Your task to perform on an android device: open app "Paramount+ | Peak Streaming" (install if not already installed) Image 0: 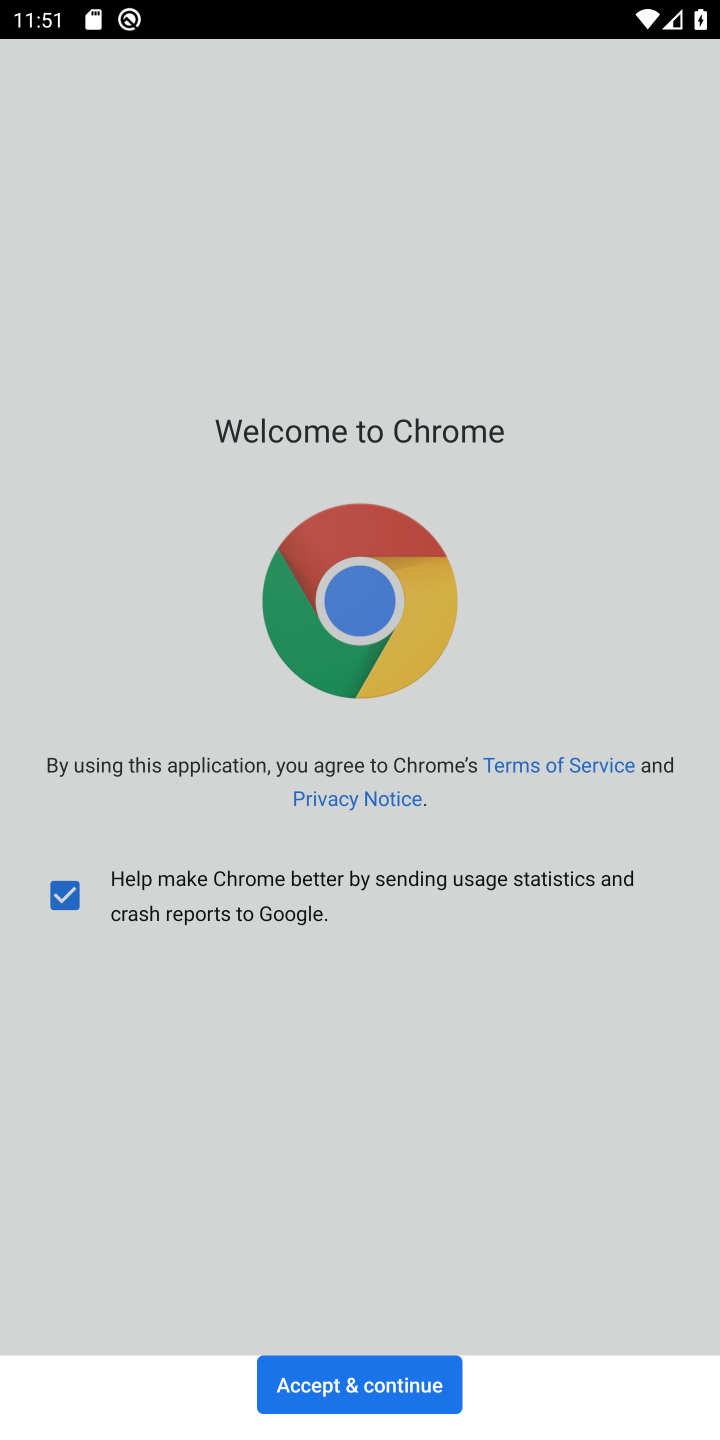
Step 0: press home button
Your task to perform on an android device: open app "Paramount+ | Peak Streaming" (install if not already installed) Image 1: 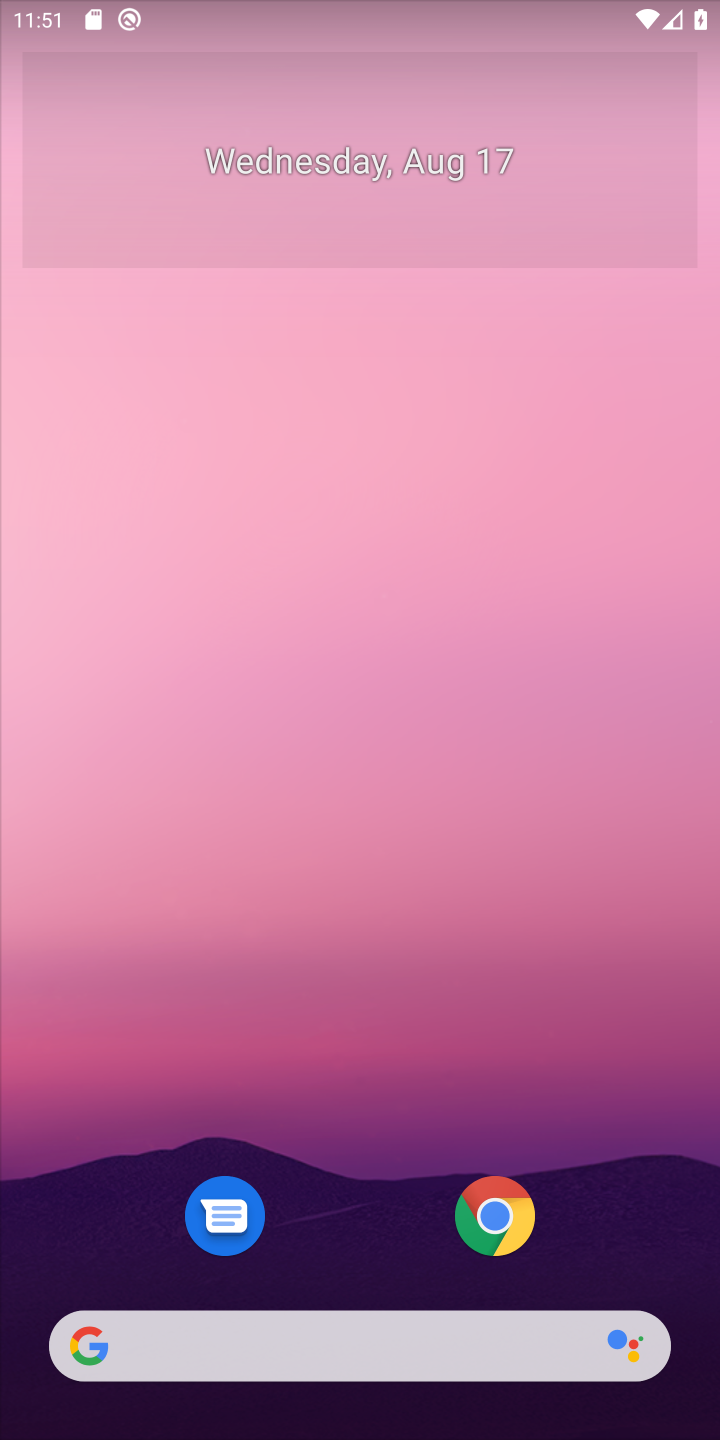
Step 1: drag from (410, 1150) to (336, 233)
Your task to perform on an android device: open app "Paramount+ | Peak Streaming" (install if not already installed) Image 2: 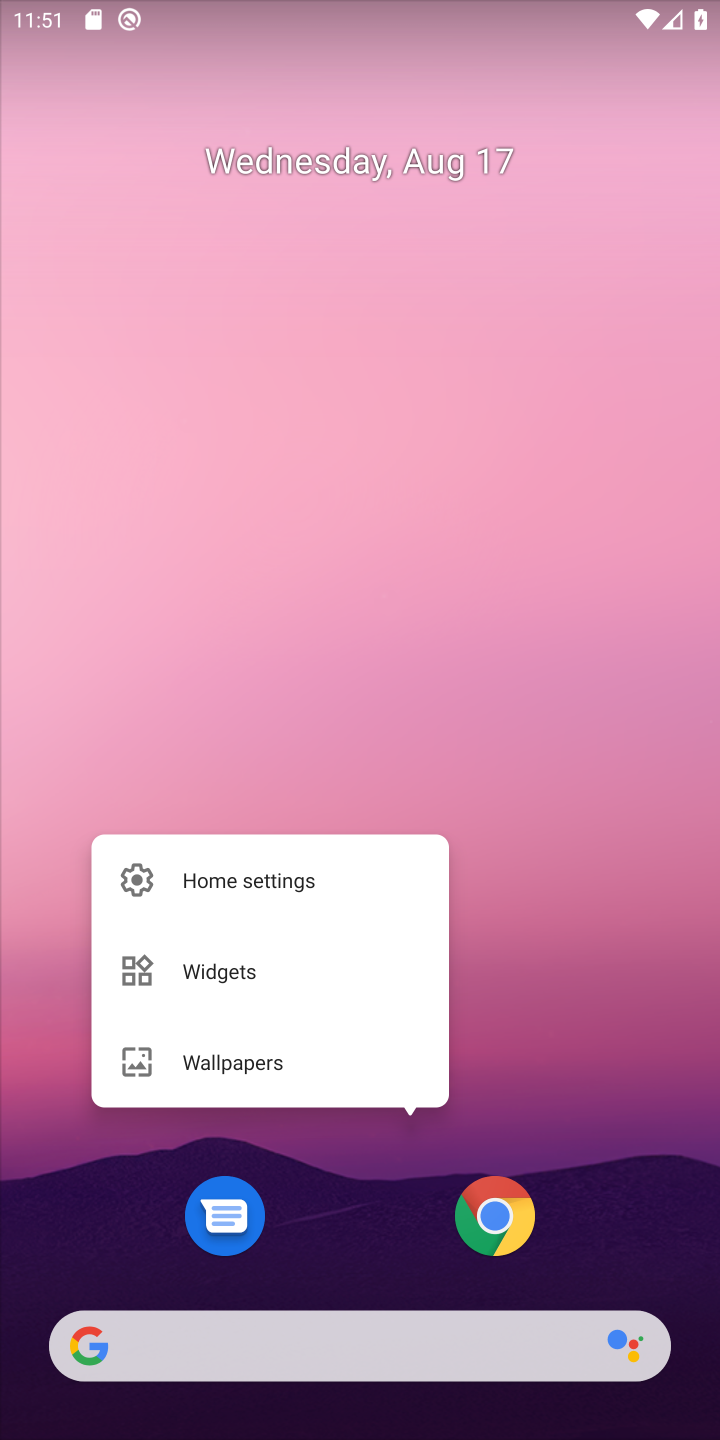
Step 2: click (649, 832)
Your task to perform on an android device: open app "Paramount+ | Peak Streaming" (install if not already installed) Image 3: 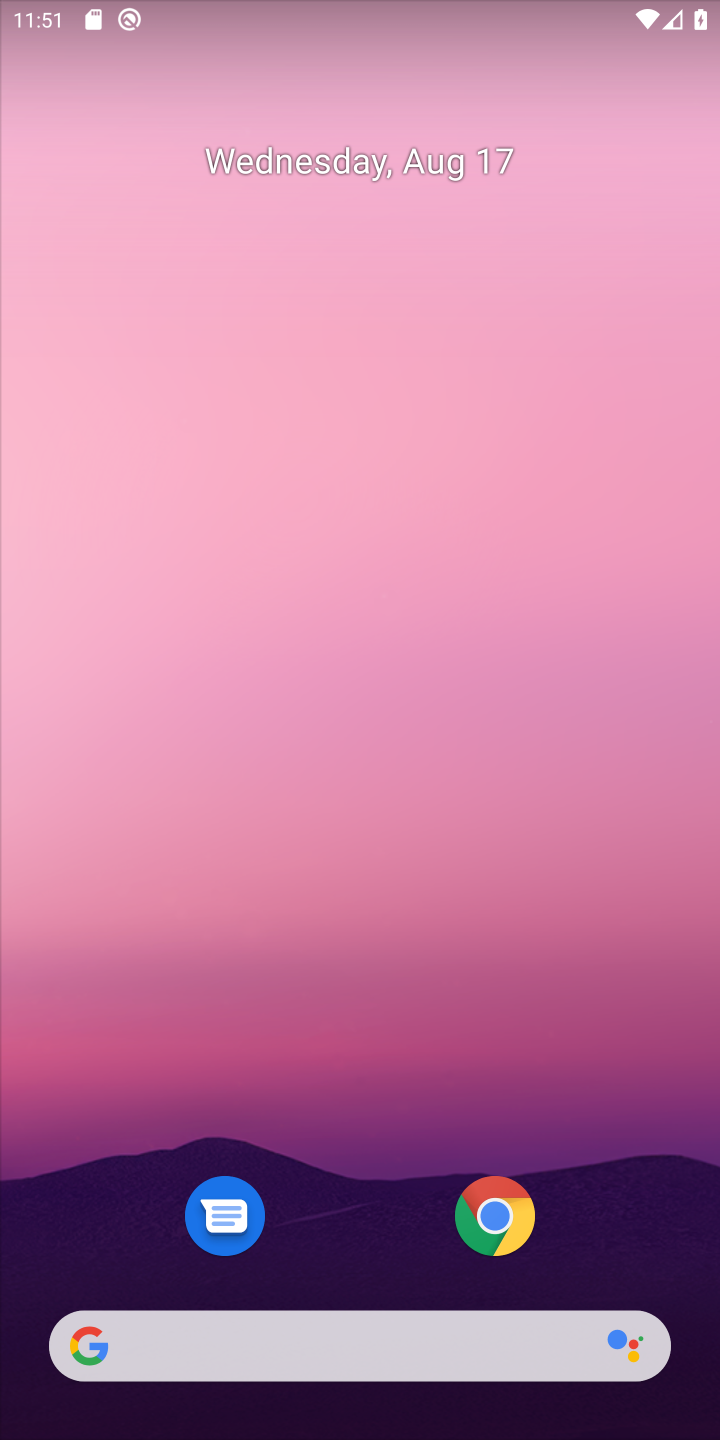
Step 3: drag from (662, 1051) to (559, 396)
Your task to perform on an android device: open app "Paramount+ | Peak Streaming" (install if not already installed) Image 4: 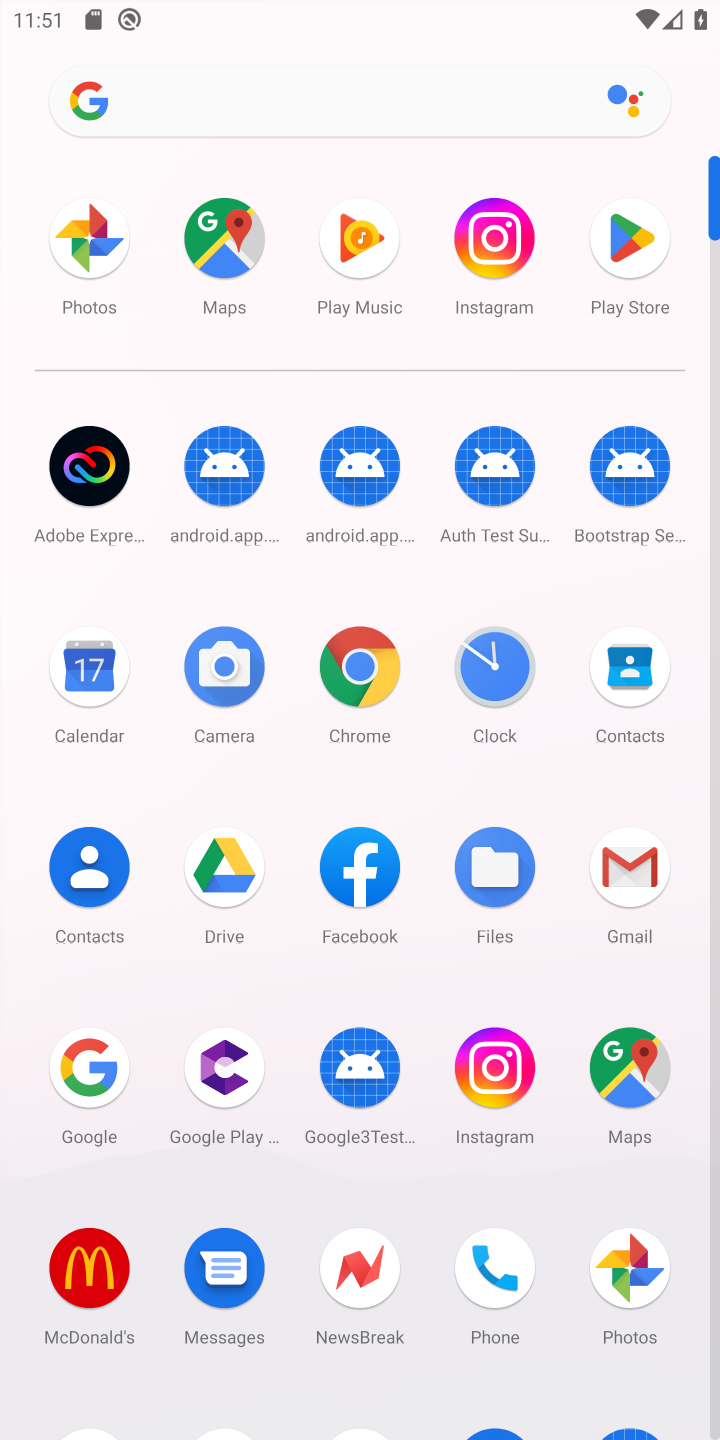
Step 4: click (645, 227)
Your task to perform on an android device: open app "Paramount+ | Peak Streaming" (install if not already installed) Image 5: 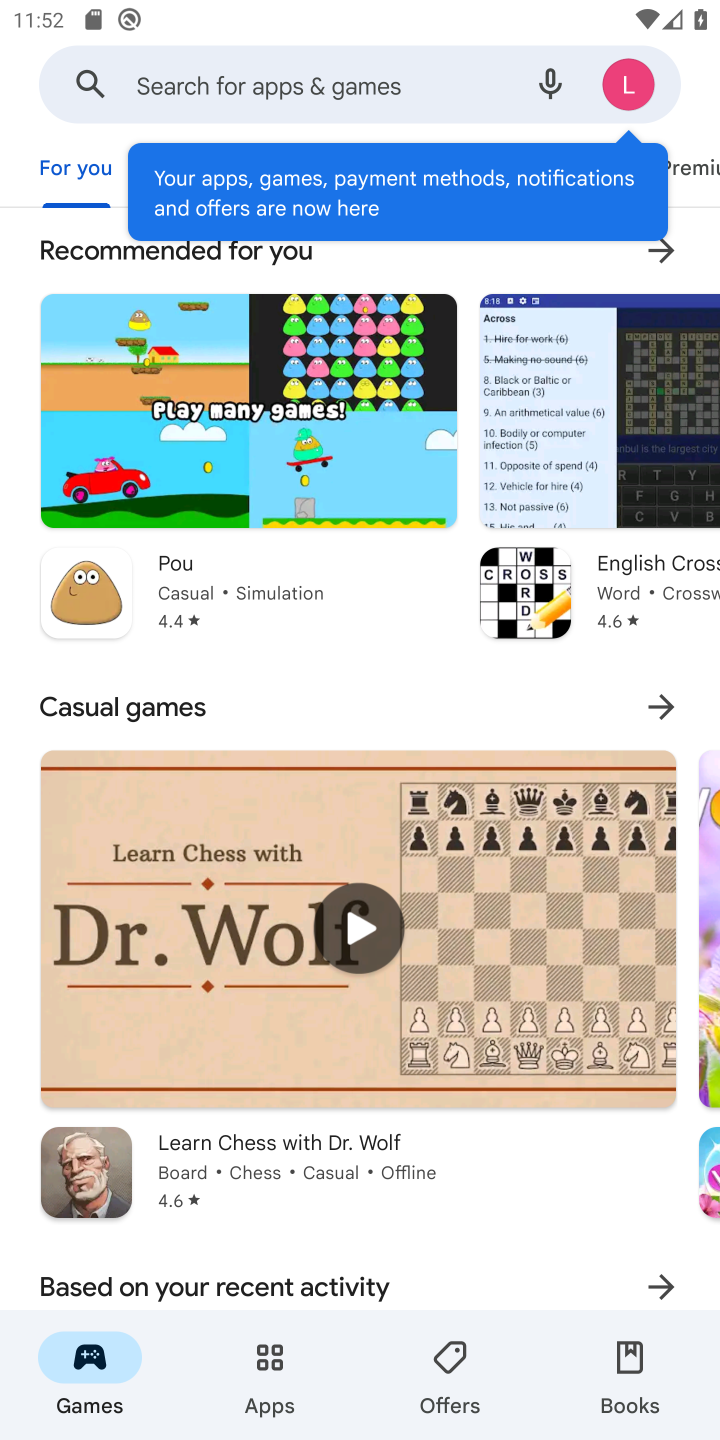
Step 5: click (319, 84)
Your task to perform on an android device: open app "Paramount+ | Peak Streaming" (install if not already installed) Image 6: 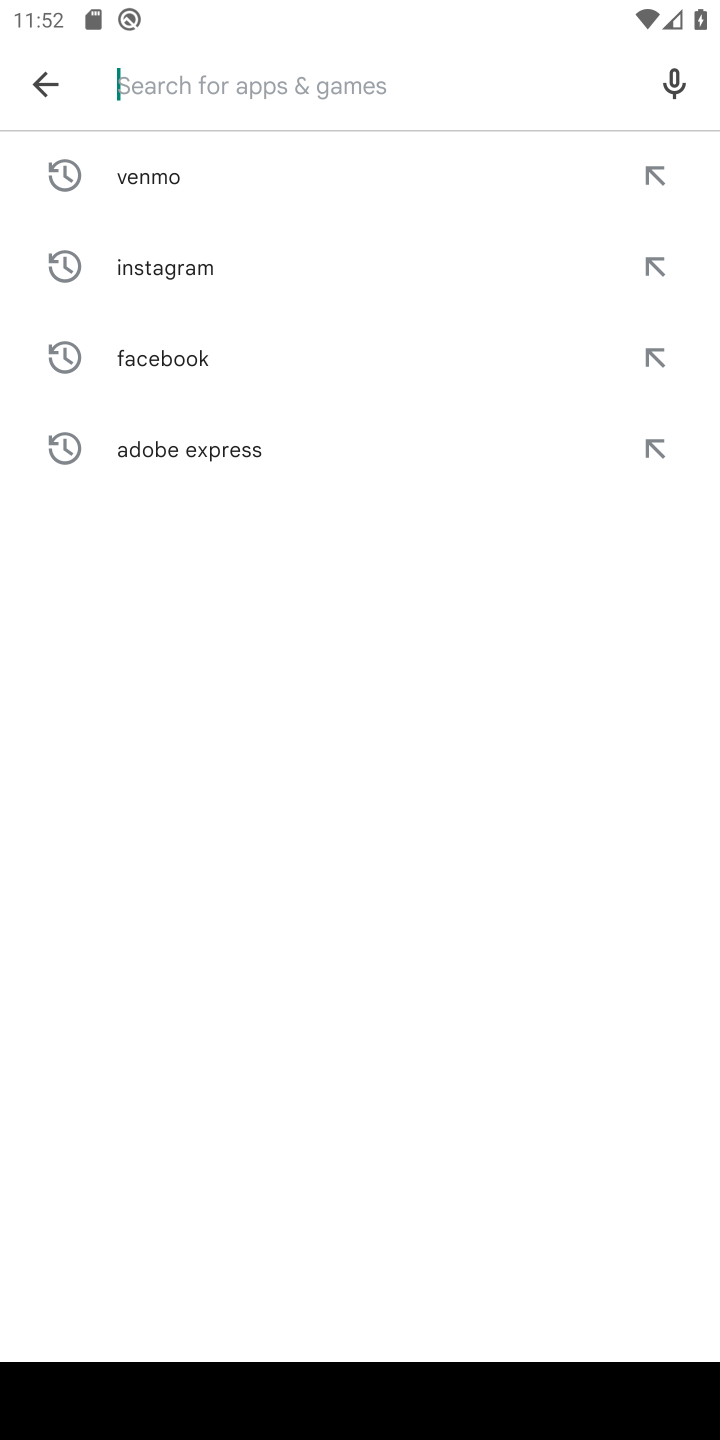
Step 6: type "paramount +"
Your task to perform on an android device: open app "Paramount+ | Peak Streaming" (install if not already installed) Image 7: 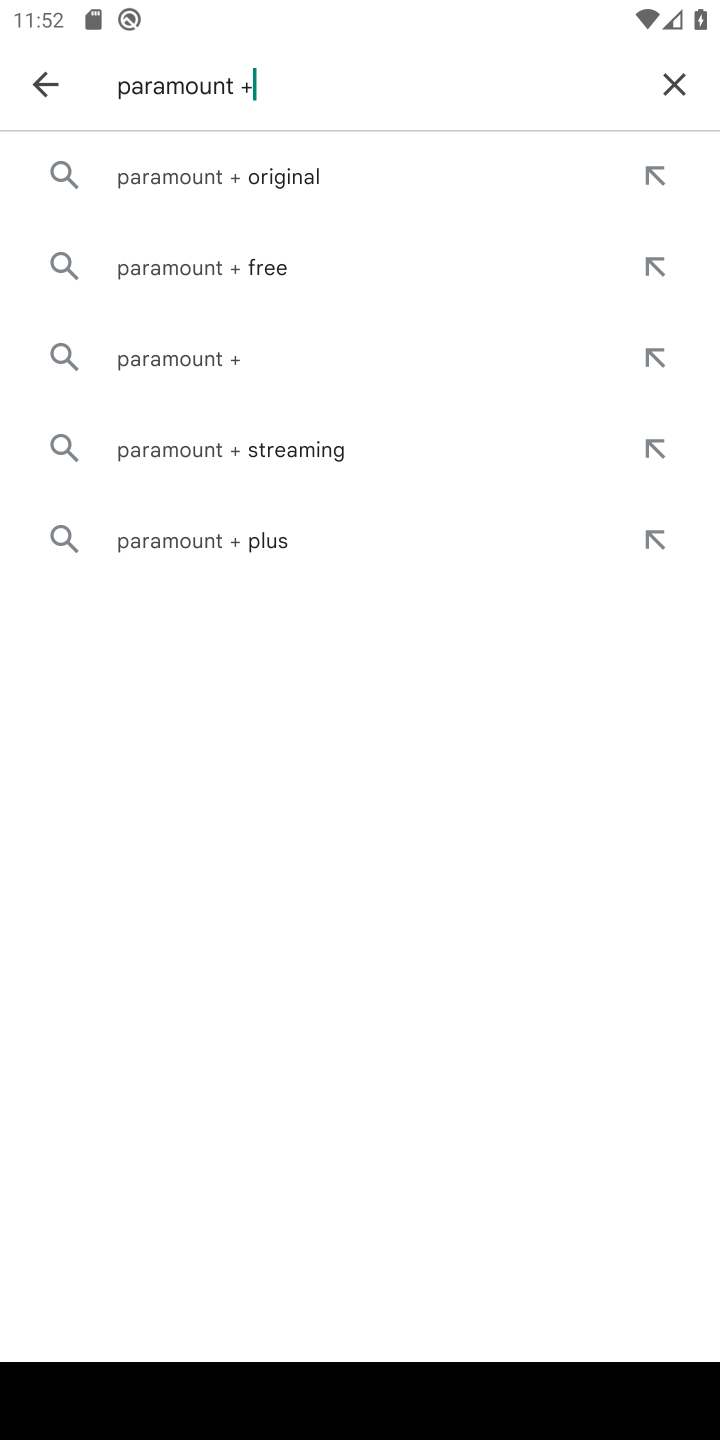
Step 7: click (339, 351)
Your task to perform on an android device: open app "Paramount+ | Peak Streaming" (install if not already installed) Image 8: 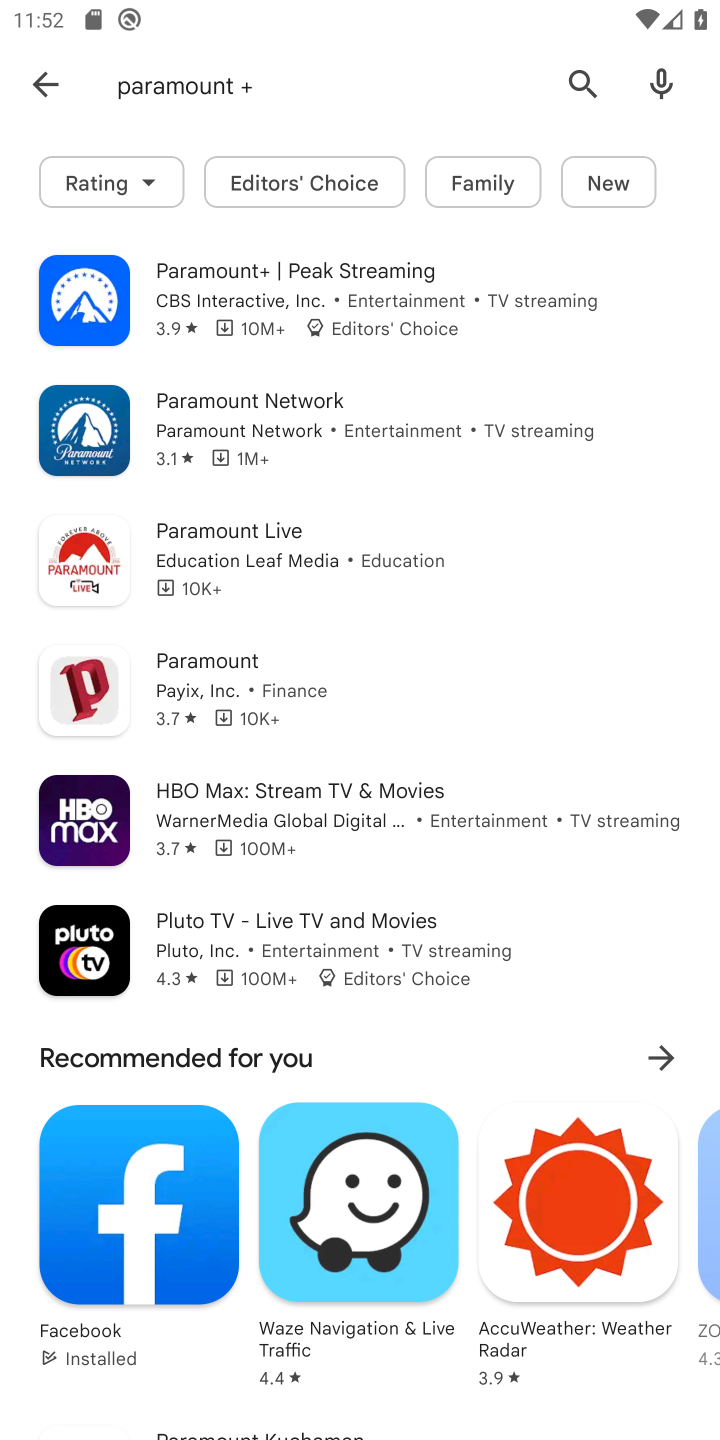
Step 8: click (340, 306)
Your task to perform on an android device: open app "Paramount+ | Peak Streaming" (install if not already installed) Image 9: 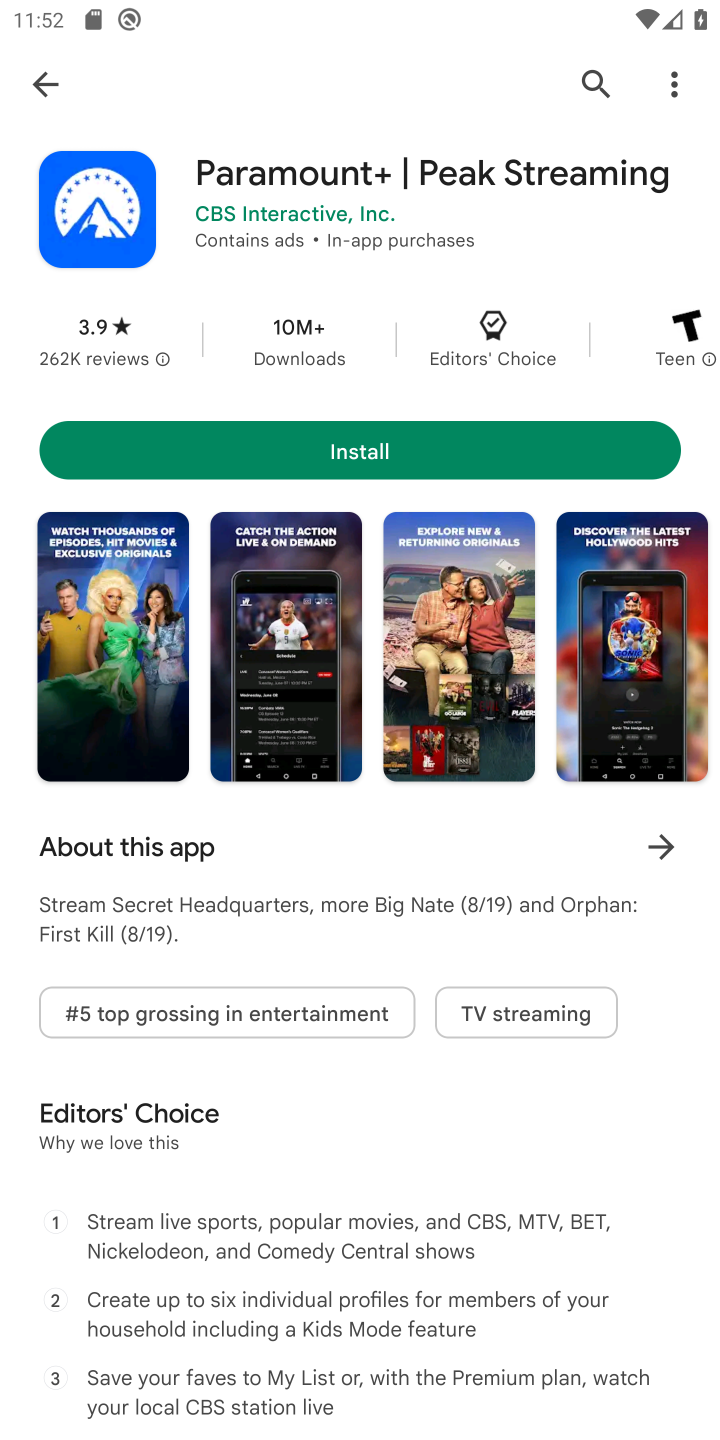
Step 9: click (447, 433)
Your task to perform on an android device: open app "Paramount+ | Peak Streaming" (install if not already installed) Image 10: 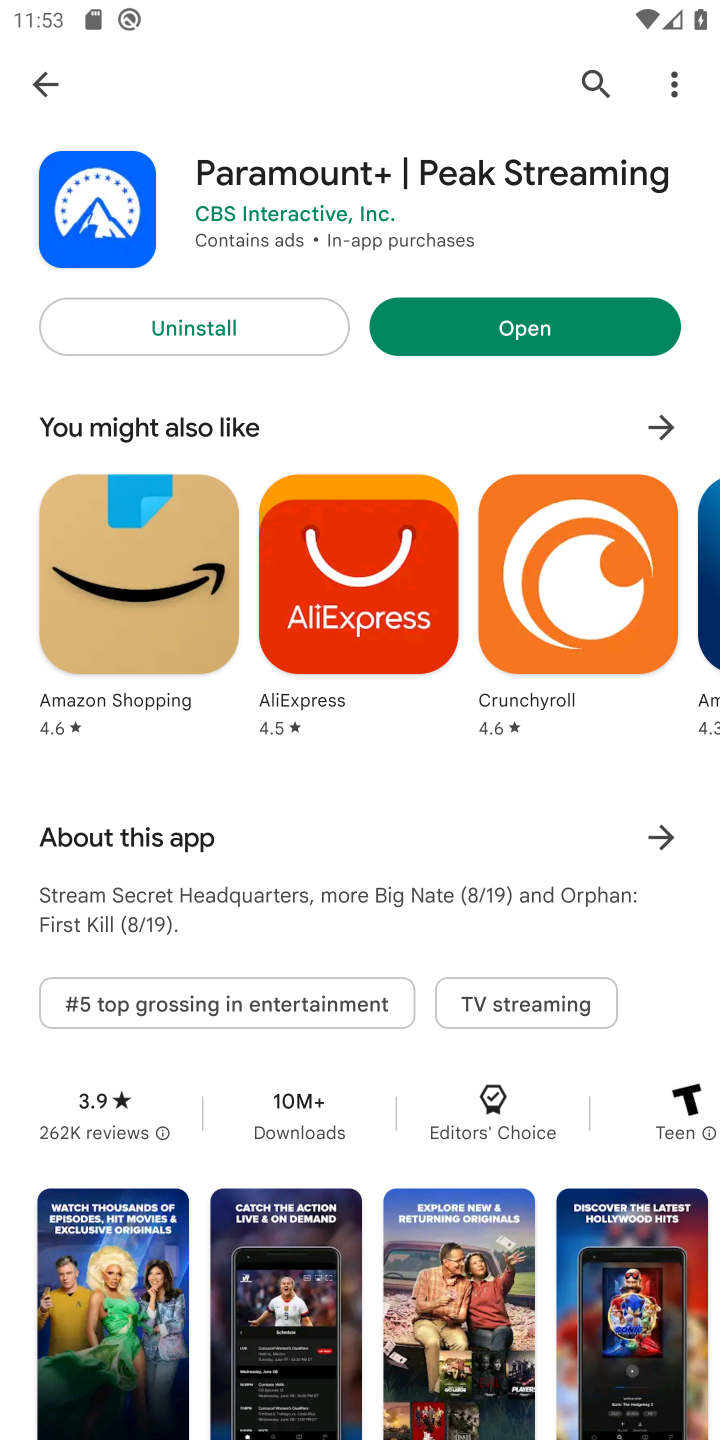
Step 10: click (515, 331)
Your task to perform on an android device: open app "Paramount+ | Peak Streaming" (install if not already installed) Image 11: 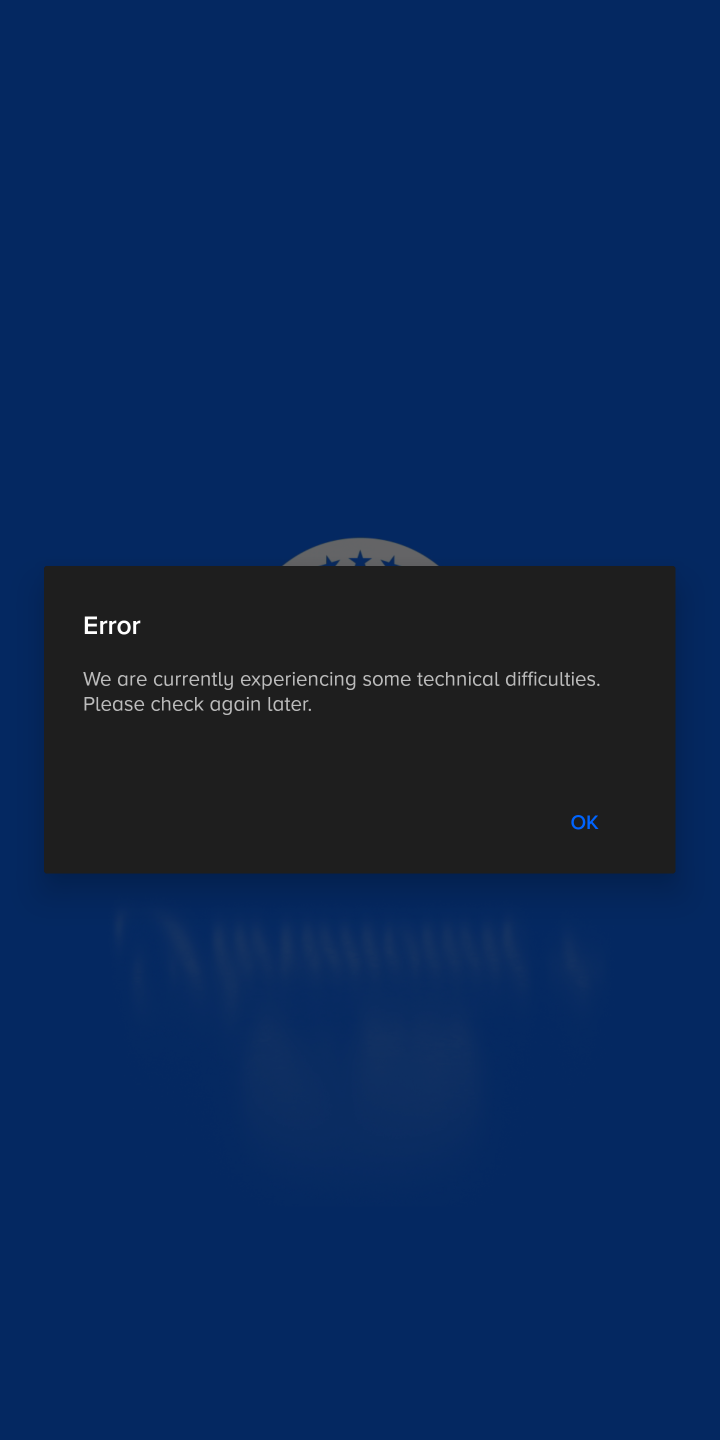
Step 11: click (604, 838)
Your task to perform on an android device: open app "Paramount+ | Peak Streaming" (install if not already installed) Image 12: 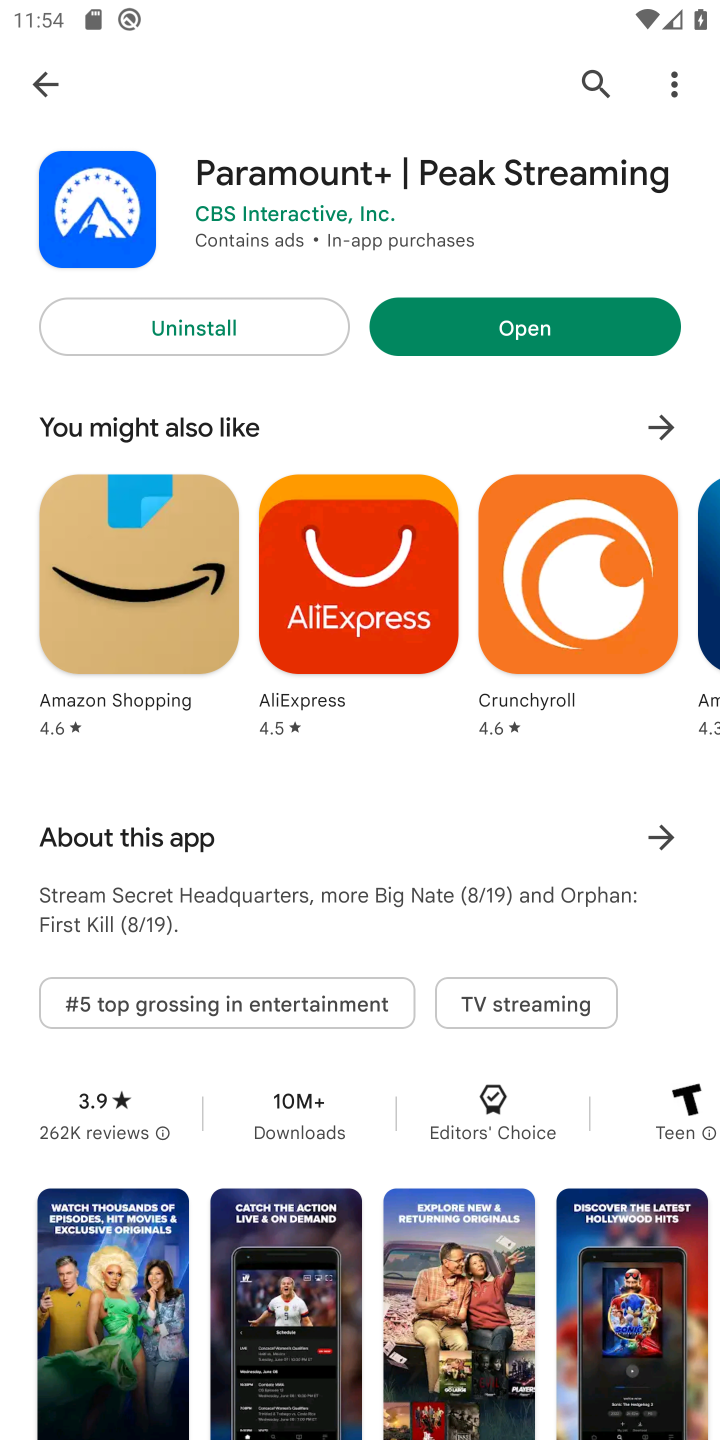
Step 12: task complete